Your task to perform on an android device: Open Google Chrome and open the bookmarks view Image 0: 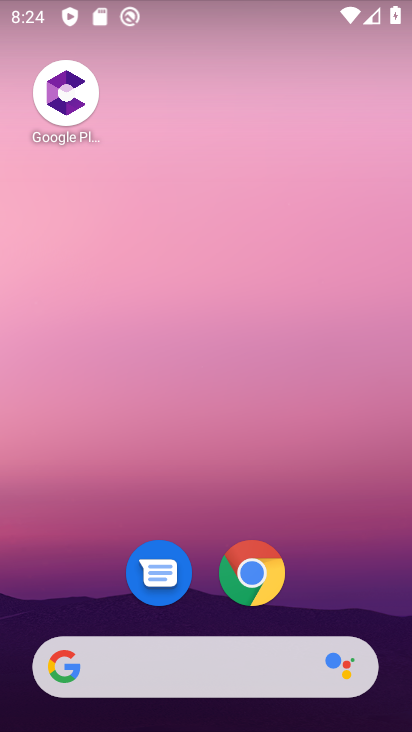
Step 0: click (252, 580)
Your task to perform on an android device: Open Google Chrome and open the bookmarks view Image 1: 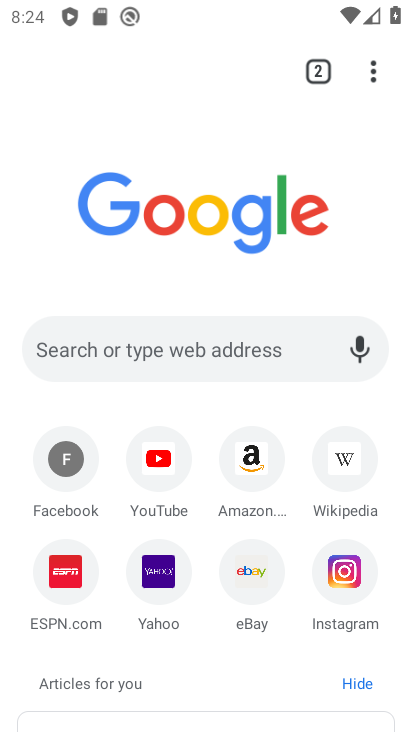
Step 1: click (368, 70)
Your task to perform on an android device: Open Google Chrome and open the bookmarks view Image 2: 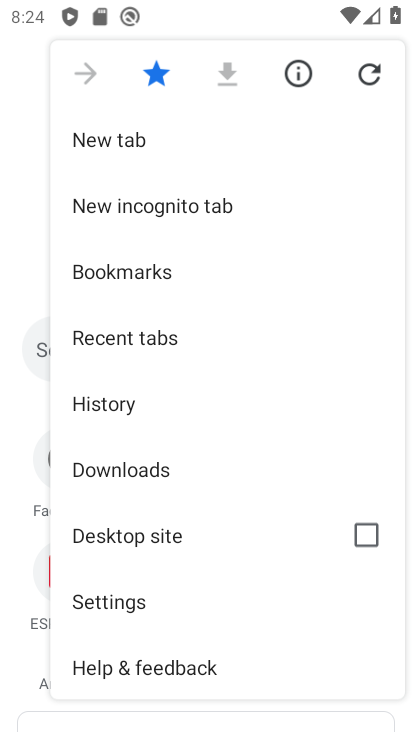
Step 2: click (148, 269)
Your task to perform on an android device: Open Google Chrome and open the bookmarks view Image 3: 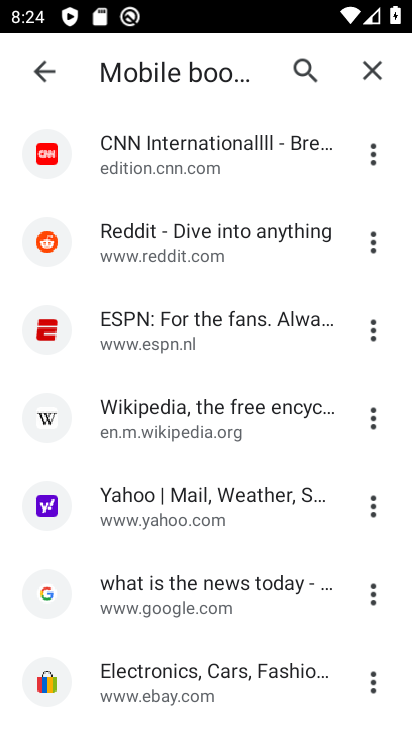
Step 3: task complete